Your task to perform on an android device: open wifi settings Image 0: 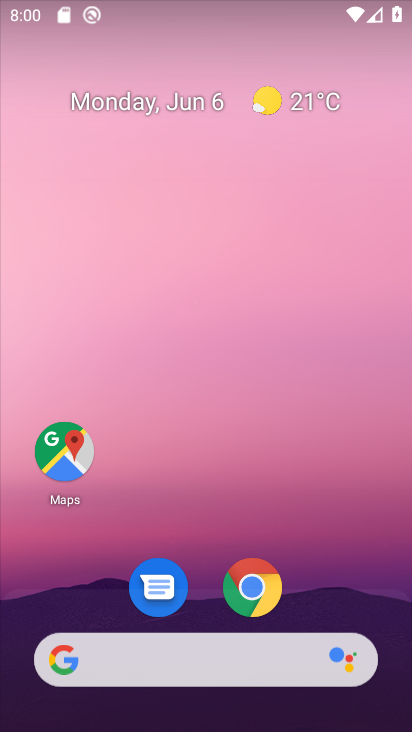
Step 0: drag from (329, 599) to (309, 111)
Your task to perform on an android device: open wifi settings Image 1: 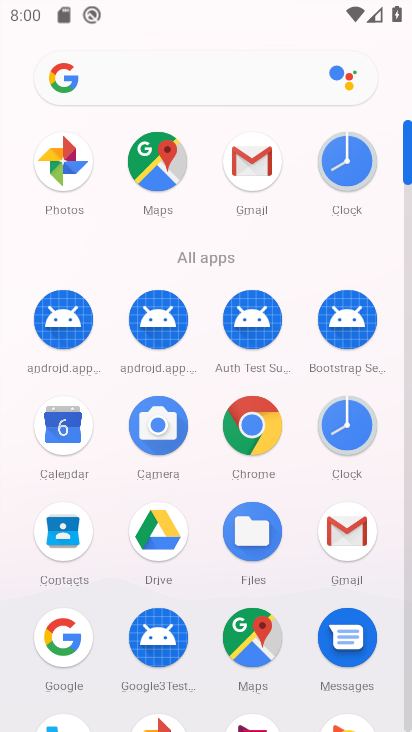
Step 1: drag from (150, 558) to (181, 275)
Your task to perform on an android device: open wifi settings Image 2: 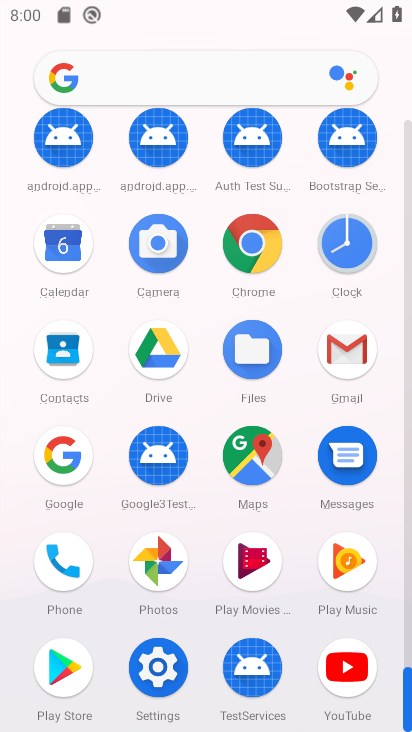
Step 2: click (148, 682)
Your task to perform on an android device: open wifi settings Image 3: 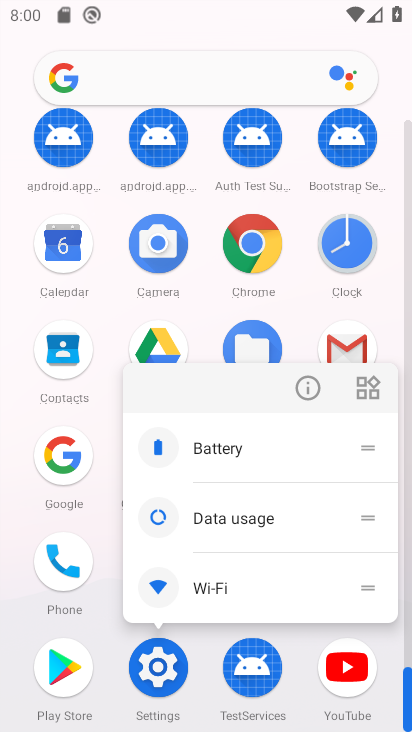
Step 3: click (147, 677)
Your task to perform on an android device: open wifi settings Image 4: 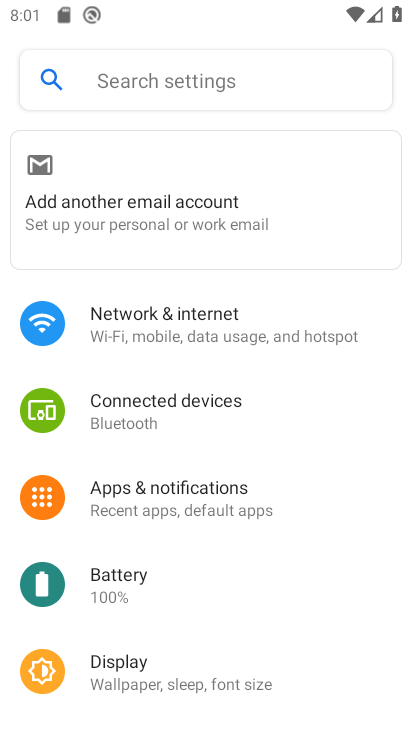
Step 4: click (233, 349)
Your task to perform on an android device: open wifi settings Image 5: 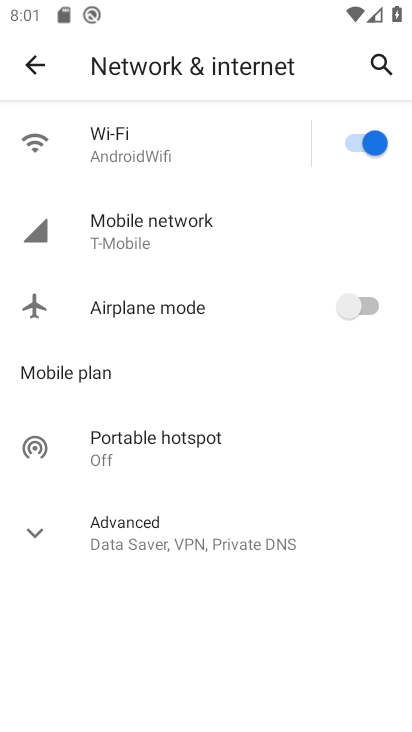
Step 5: click (175, 141)
Your task to perform on an android device: open wifi settings Image 6: 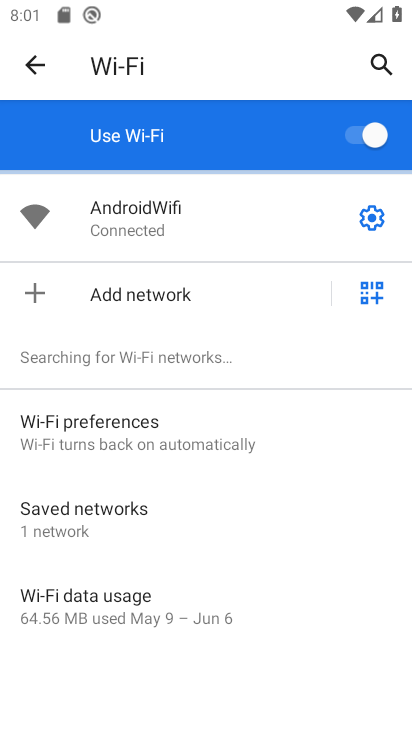
Step 6: click (369, 227)
Your task to perform on an android device: open wifi settings Image 7: 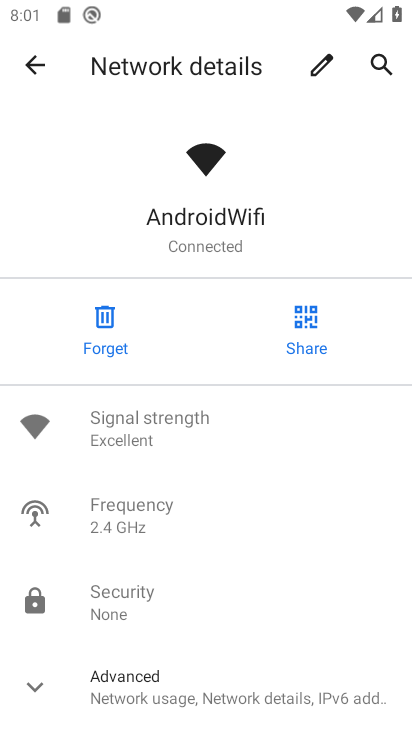
Step 7: task complete